Your task to perform on an android device: Turn on the flashlight Image 0: 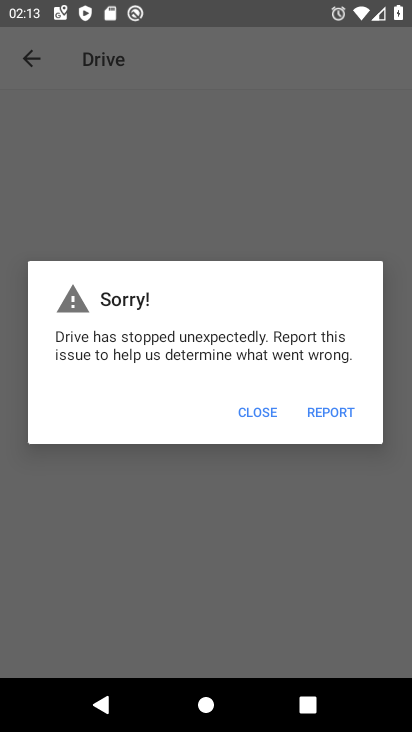
Step 0: drag from (260, 4) to (269, 567)
Your task to perform on an android device: Turn on the flashlight Image 1: 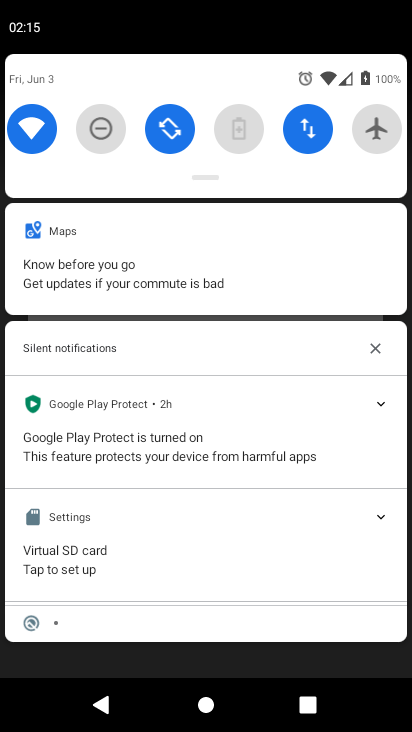
Step 1: task complete